Your task to perform on an android device: turn off airplane mode Image 0: 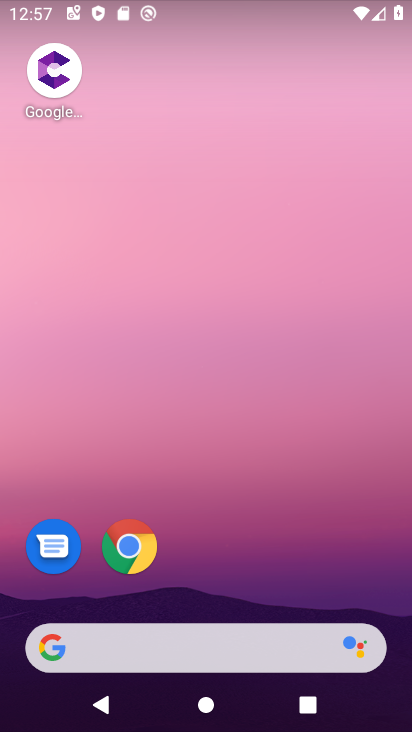
Step 0: drag from (277, 591) to (257, 94)
Your task to perform on an android device: turn off airplane mode Image 1: 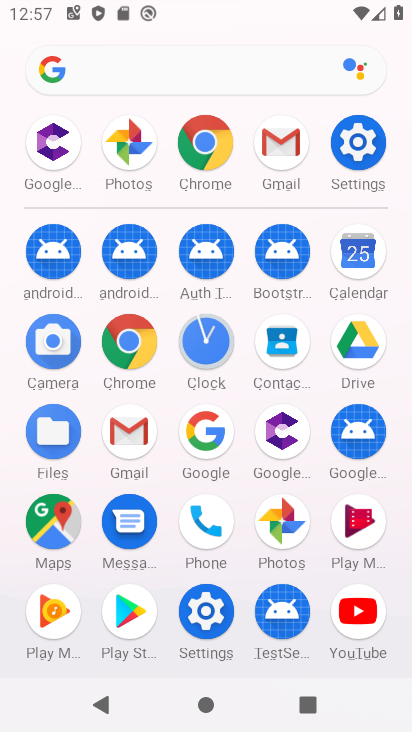
Step 1: click (358, 170)
Your task to perform on an android device: turn off airplane mode Image 2: 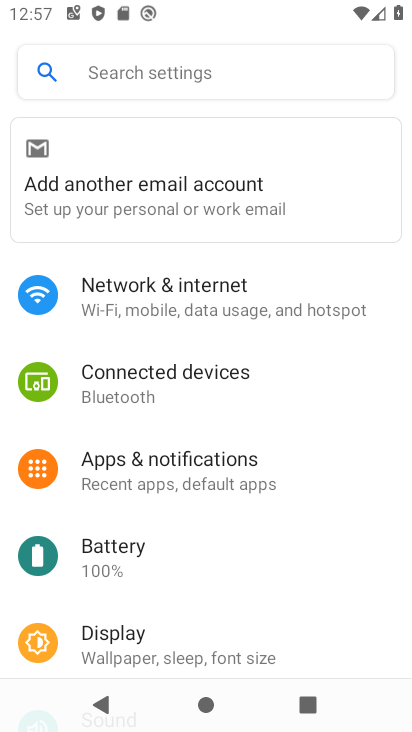
Step 2: click (293, 294)
Your task to perform on an android device: turn off airplane mode Image 3: 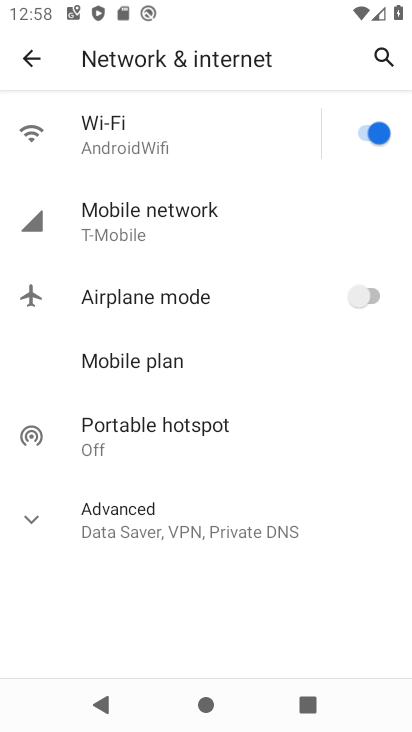
Step 3: click (306, 322)
Your task to perform on an android device: turn off airplane mode Image 4: 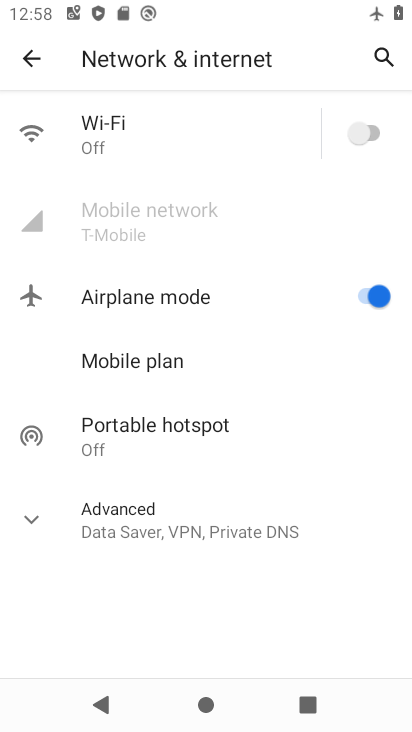
Step 4: click (368, 141)
Your task to perform on an android device: turn off airplane mode Image 5: 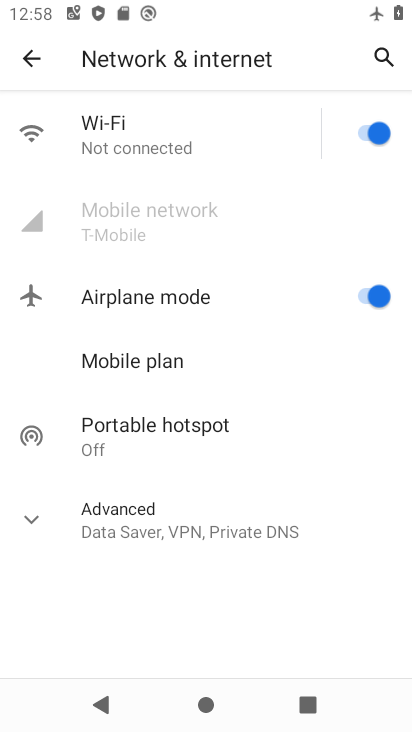
Step 5: task complete